Your task to perform on an android device: turn on the 12-hour format for clock Image 0: 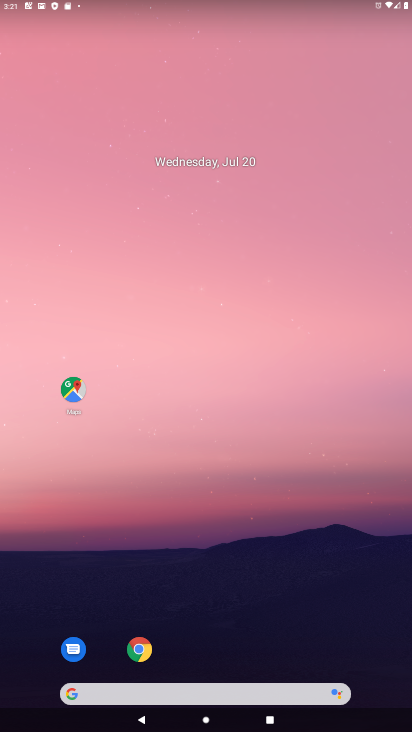
Step 0: drag from (178, 693) to (287, 148)
Your task to perform on an android device: turn on the 12-hour format for clock Image 1: 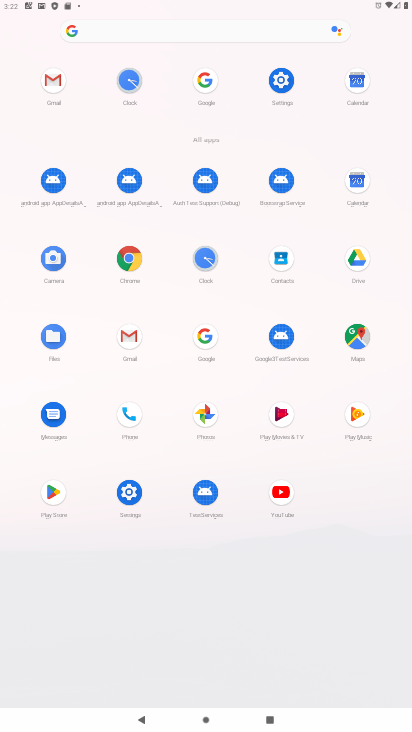
Step 1: click (204, 258)
Your task to perform on an android device: turn on the 12-hour format for clock Image 2: 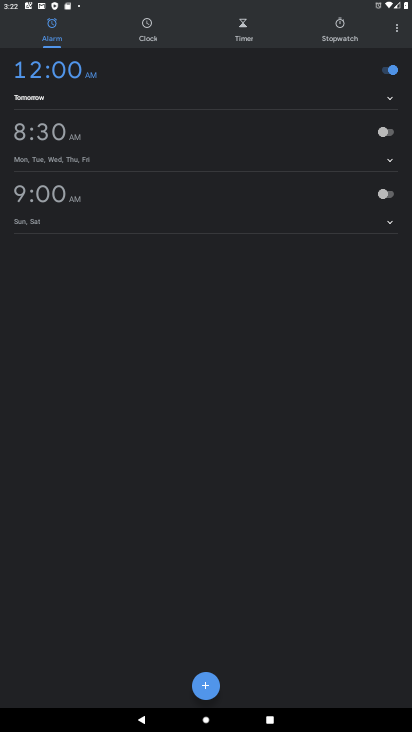
Step 2: click (398, 26)
Your task to perform on an android device: turn on the 12-hour format for clock Image 3: 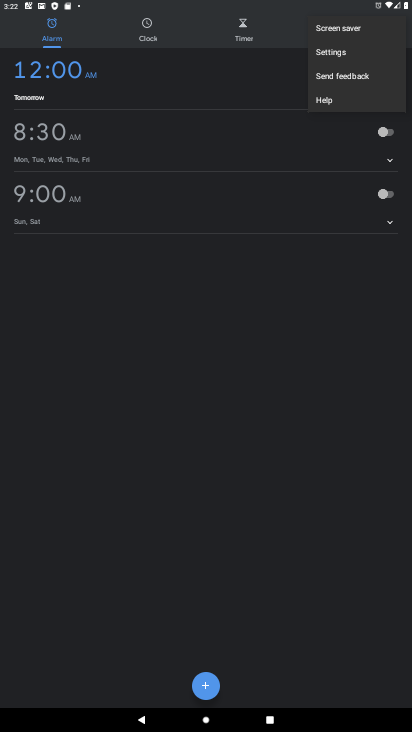
Step 3: click (334, 55)
Your task to perform on an android device: turn on the 12-hour format for clock Image 4: 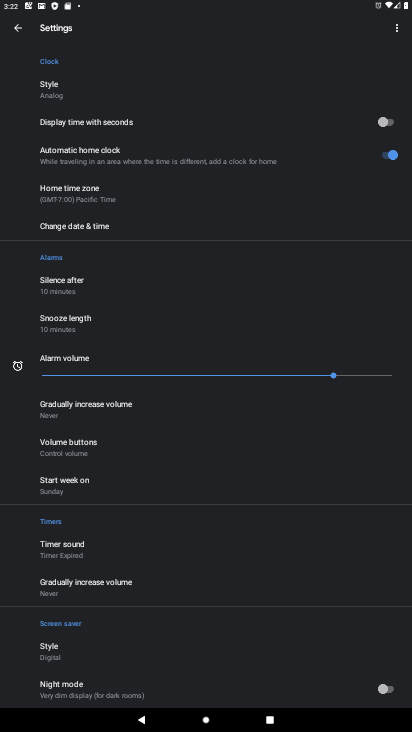
Step 4: click (93, 228)
Your task to perform on an android device: turn on the 12-hour format for clock Image 5: 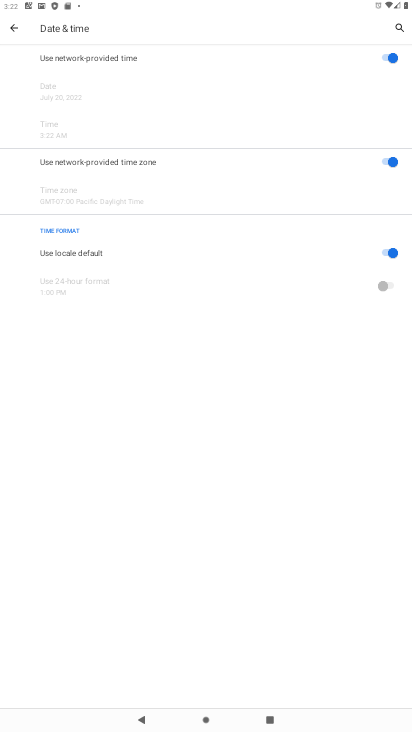
Step 5: task complete